Your task to perform on an android device: Go to settings Image 0: 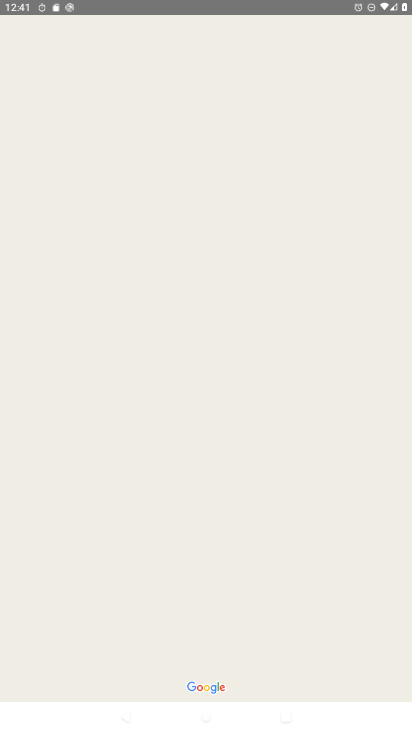
Step 0: press home button
Your task to perform on an android device: Go to settings Image 1: 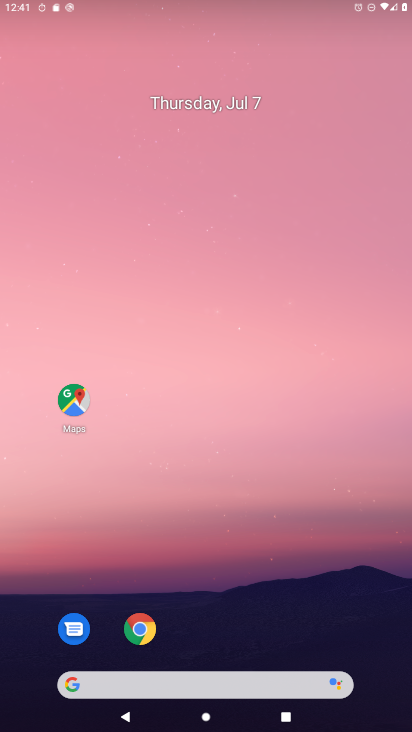
Step 1: drag from (216, 636) to (222, 185)
Your task to perform on an android device: Go to settings Image 2: 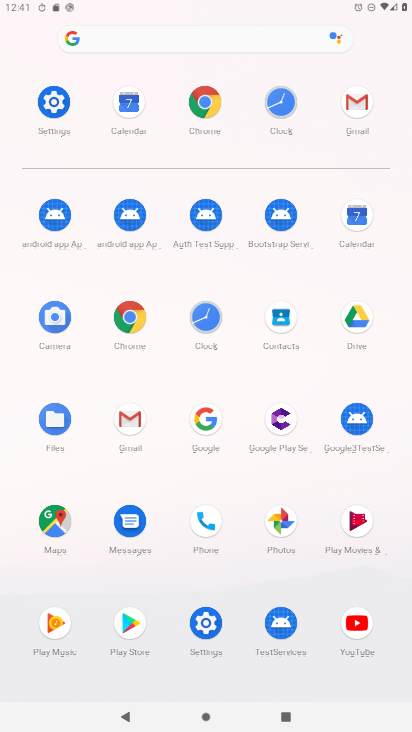
Step 2: click (66, 106)
Your task to perform on an android device: Go to settings Image 3: 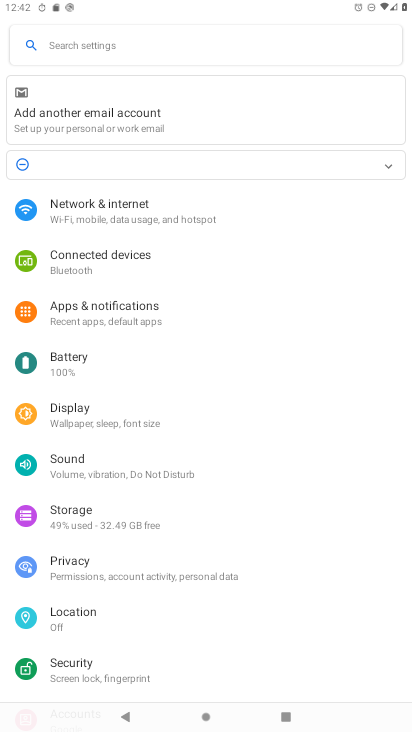
Step 3: task complete